Your task to perform on an android device: Clear all items from cart on ebay. Image 0: 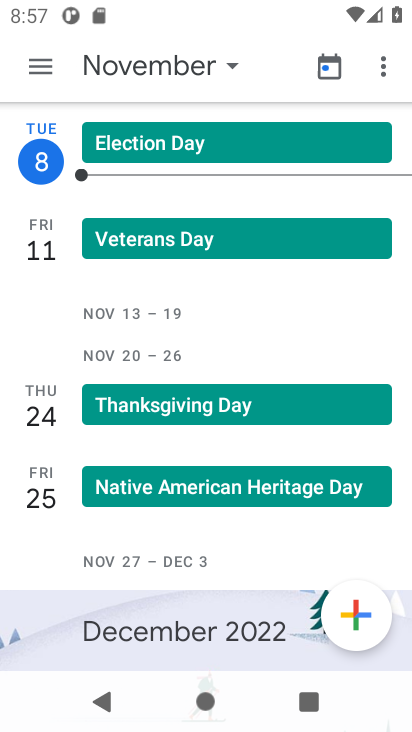
Step 0: press home button
Your task to perform on an android device: Clear all items from cart on ebay. Image 1: 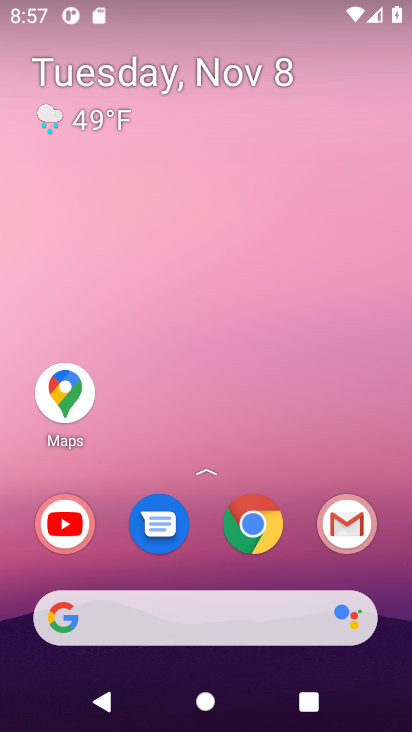
Step 1: click (252, 530)
Your task to perform on an android device: Clear all items from cart on ebay. Image 2: 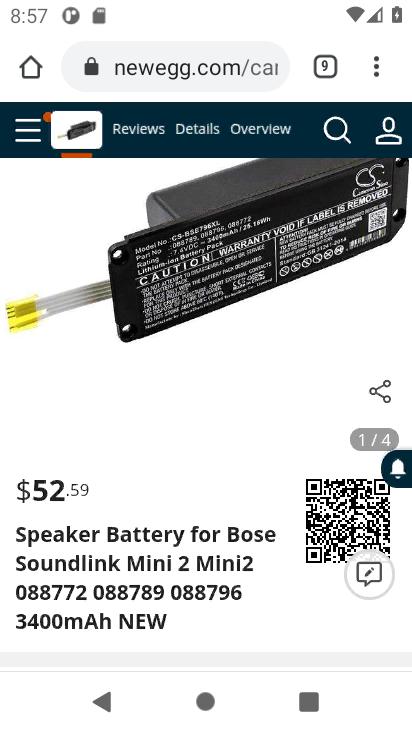
Step 2: click (136, 64)
Your task to perform on an android device: Clear all items from cart on ebay. Image 3: 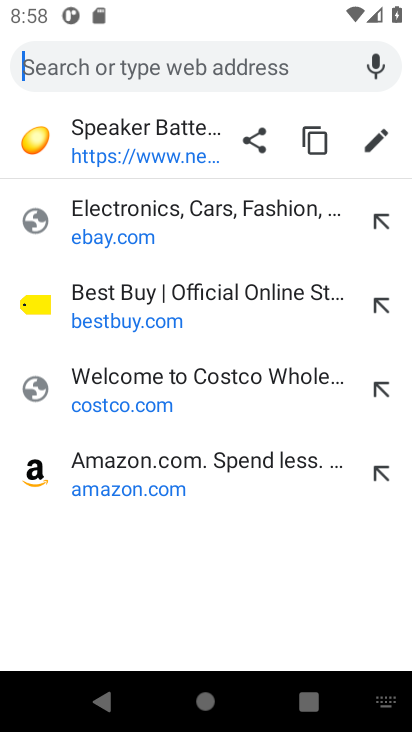
Step 3: click (111, 222)
Your task to perform on an android device: Clear all items from cart on ebay. Image 4: 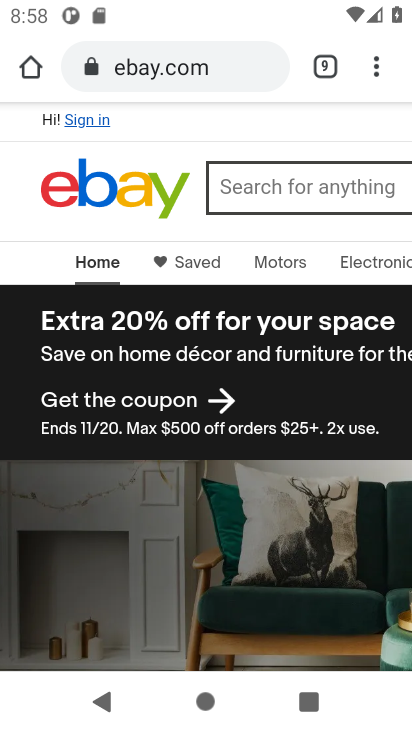
Step 4: drag from (277, 220) to (34, 165)
Your task to perform on an android device: Clear all items from cart on ebay. Image 5: 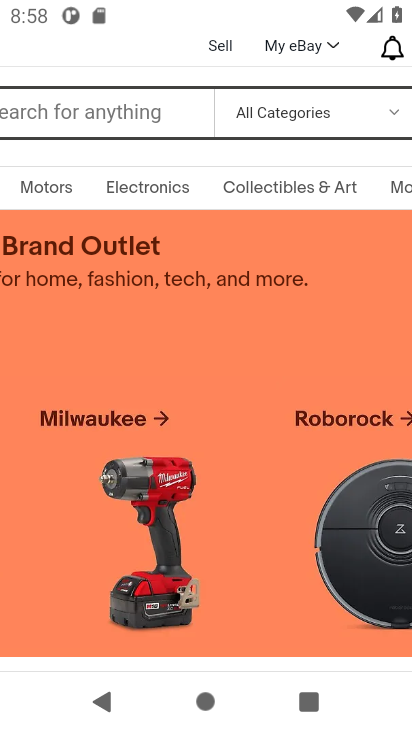
Step 5: drag from (356, 155) to (66, 166)
Your task to perform on an android device: Clear all items from cart on ebay. Image 6: 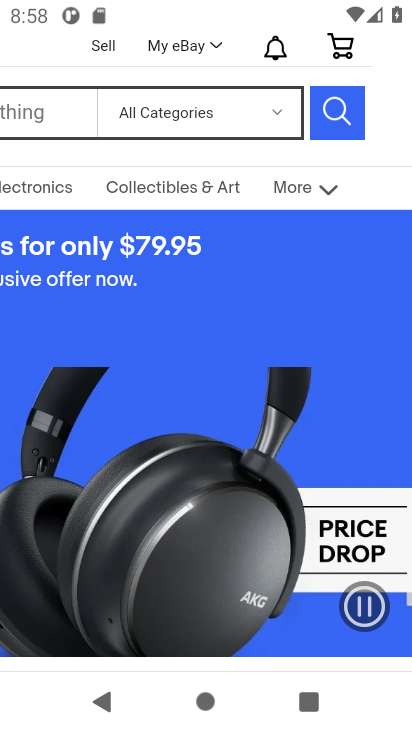
Step 6: click (343, 46)
Your task to perform on an android device: Clear all items from cart on ebay. Image 7: 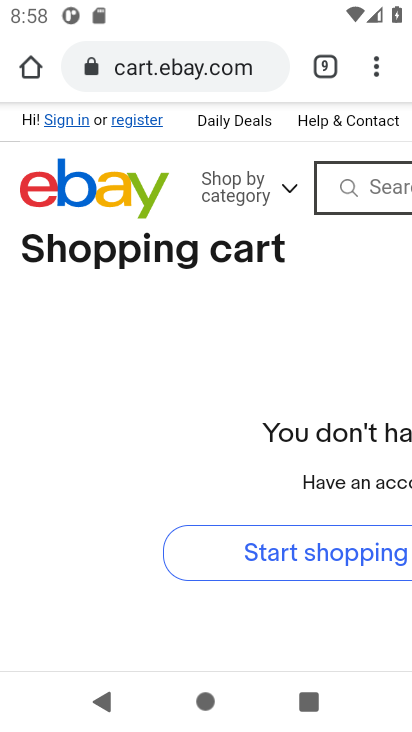
Step 7: task complete